Your task to perform on an android device: see sites visited before in the chrome app Image 0: 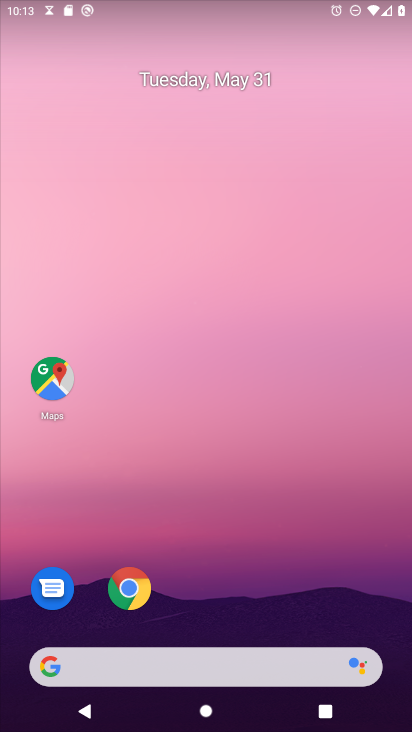
Step 0: click (131, 587)
Your task to perform on an android device: see sites visited before in the chrome app Image 1: 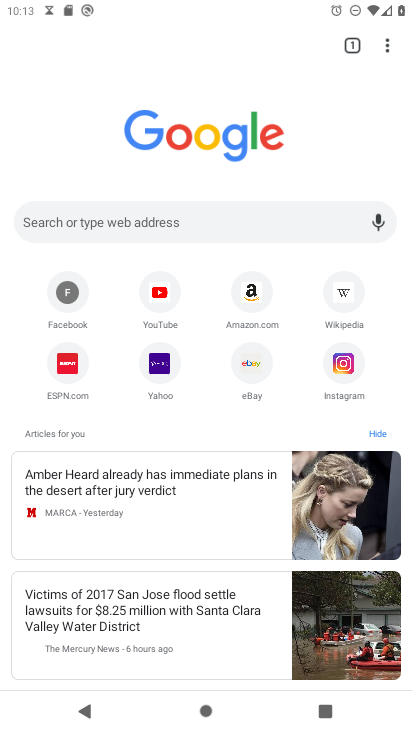
Step 1: click (387, 44)
Your task to perform on an android device: see sites visited before in the chrome app Image 2: 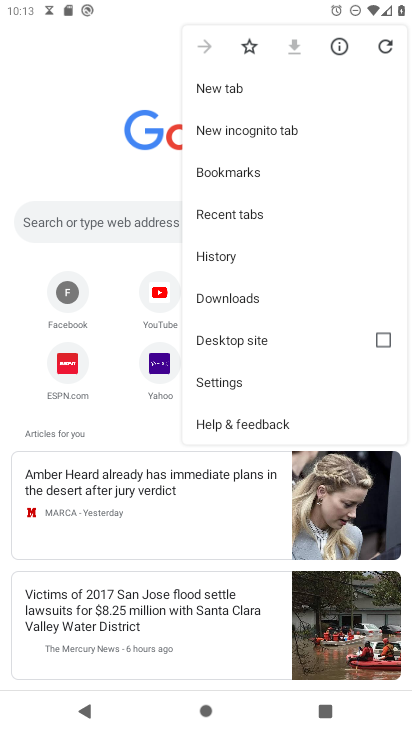
Step 2: click (225, 260)
Your task to perform on an android device: see sites visited before in the chrome app Image 3: 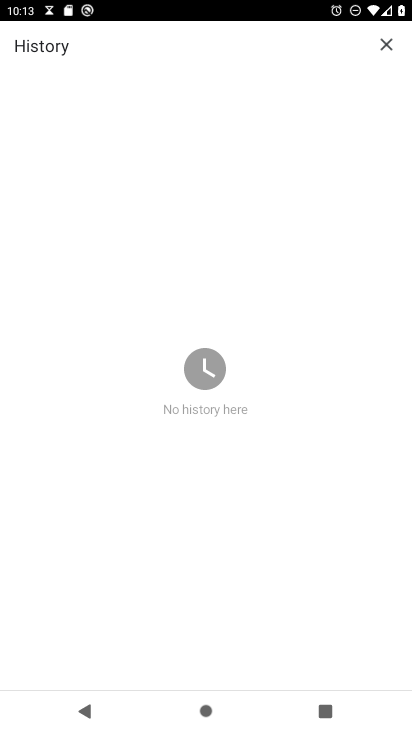
Step 3: task complete